Your task to perform on an android device: change notification settings in the gmail app Image 0: 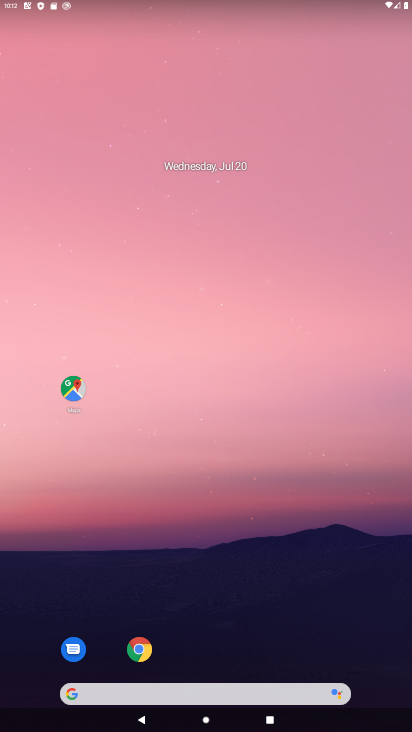
Step 0: drag from (244, 658) to (261, 28)
Your task to perform on an android device: change notification settings in the gmail app Image 1: 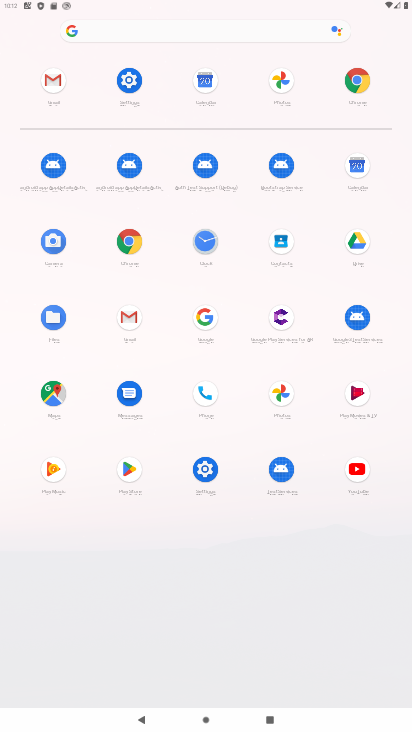
Step 1: click (44, 76)
Your task to perform on an android device: change notification settings in the gmail app Image 2: 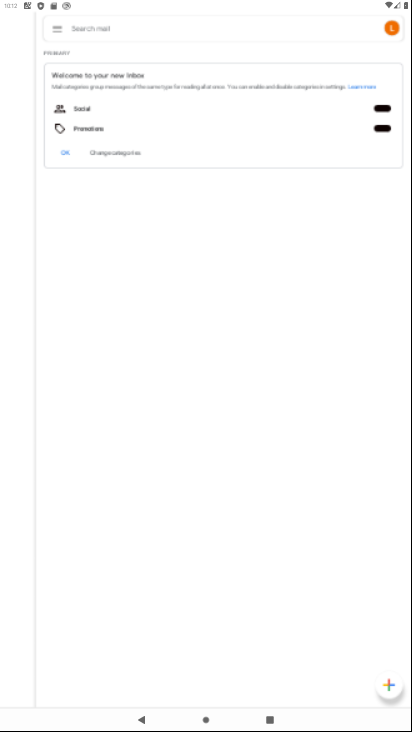
Step 2: task complete